Your task to perform on an android device: Go to display settings Image 0: 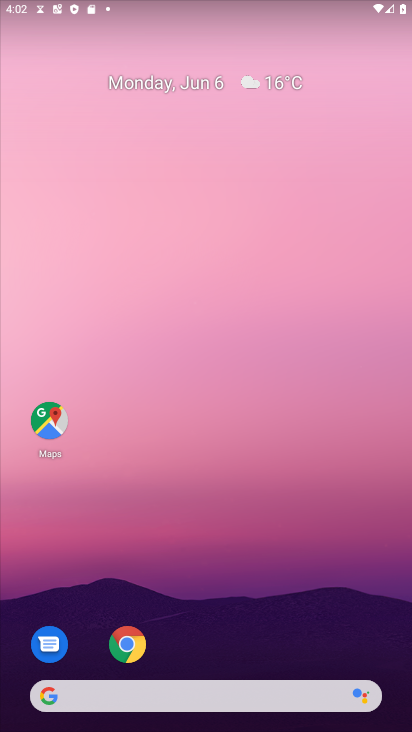
Step 0: drag from (111, 516) to (159, 88)
Your task to perform on an android device: Go to display settings Image 1: 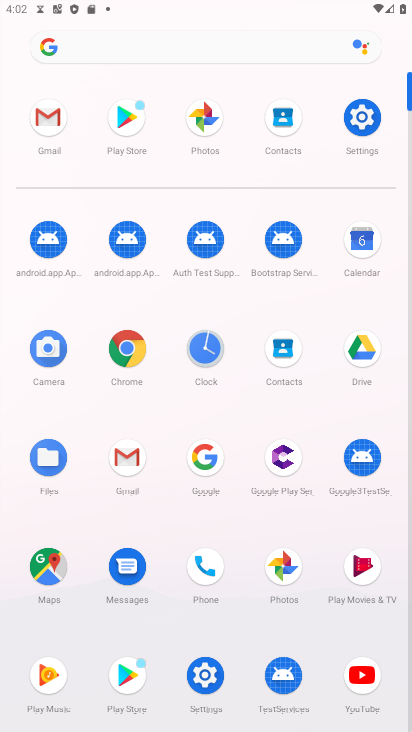
Step 1: click (362, 132)
Your task to perform on an android device: Go to display settings Image 2: 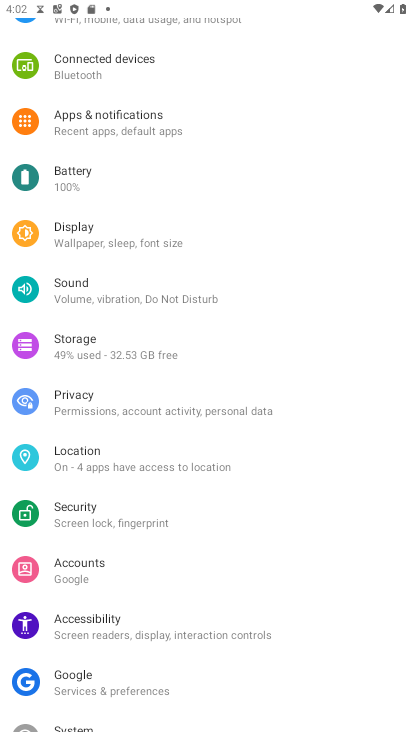
Step 2: click (69, 226)
Your task to perform on an android device: Go to display settings Image 3: 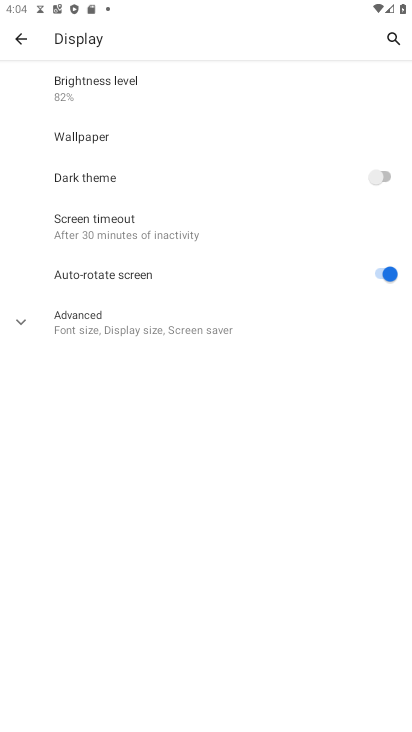
Step 3: task complete